Your task to perform on an android device: Show me productivity apps on the Play Store Image 0: 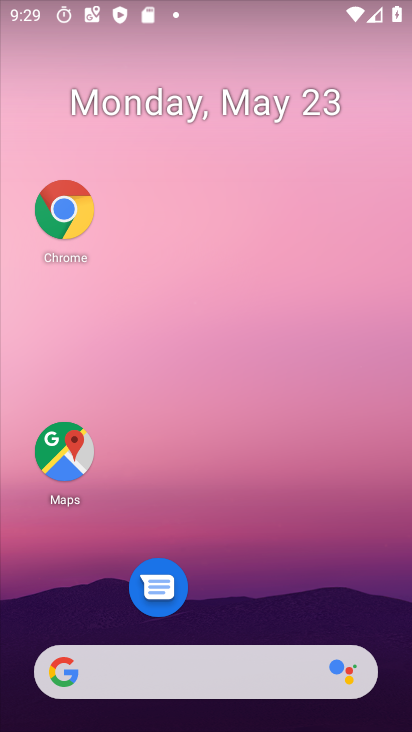
Step 0: click (132, 383)
Your task to perform on an android device: Show me productivity apps on the Play Store Image 1: 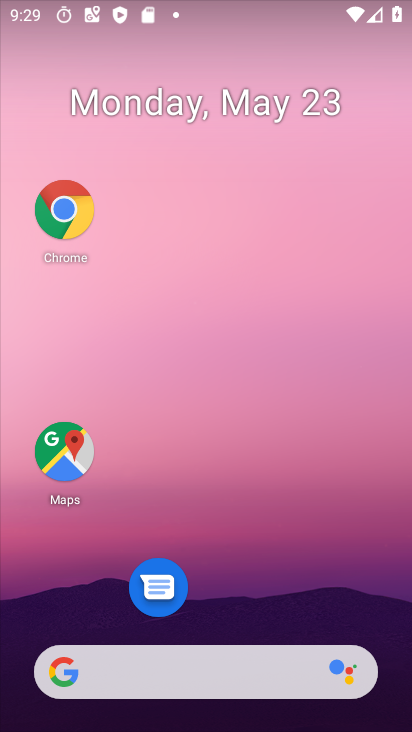
Step 1: drag from (285, 600) to (204, 155)
Your task to perform on an android device: Show me productivity apps on the Play Store Image 2: 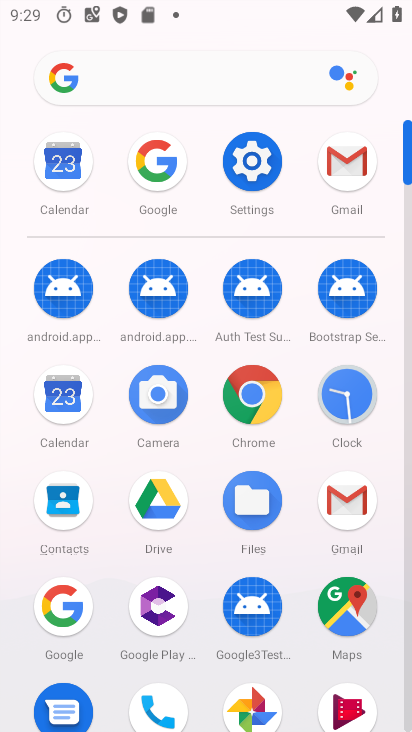
Step 2: drag from (299, 637) to (205, 219)
Your task to perform on an android device: Show me productivity apps on the Play Store Image 3: 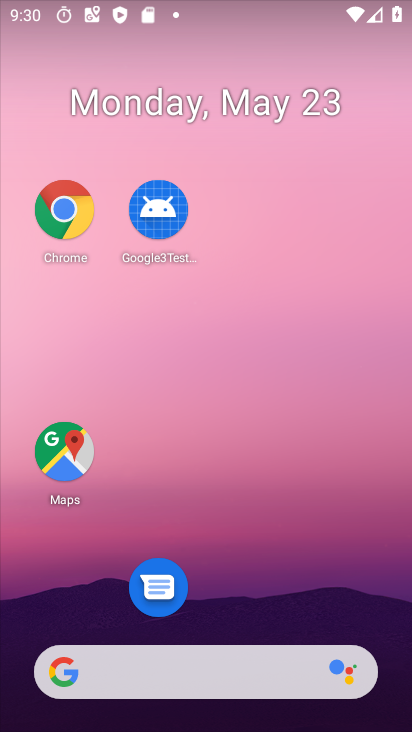
Step 3: drag from (269, 619) to (221, 10)
Your task to perform on an android device: Show me productivity apps on the Play Store Image 4: 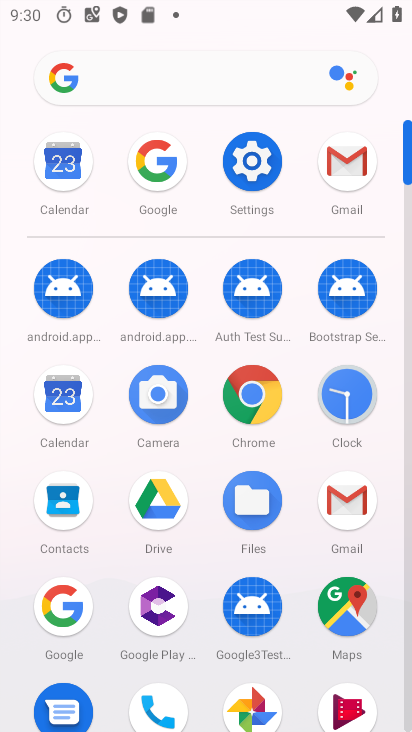
Step 4: drag from (293, 647) to (262, 23)
Your task to perform on an android device: Show me productivity apps on the Play Store Image 5: 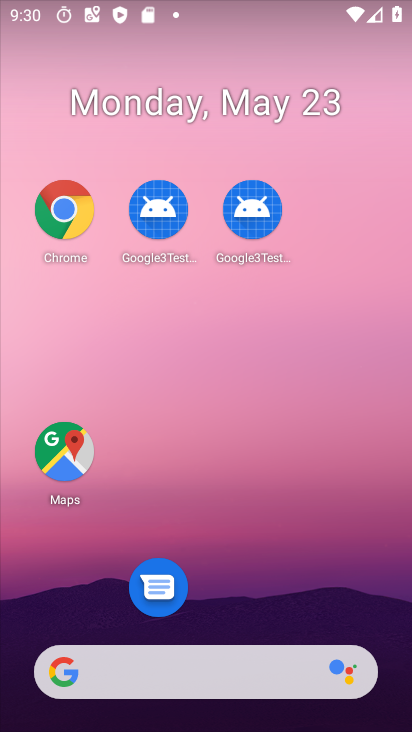
Step 5: drag from (256, 613) to (380, 10)
Your task to perform on an android device: Show me productivity apps on the Play Store Image 6: 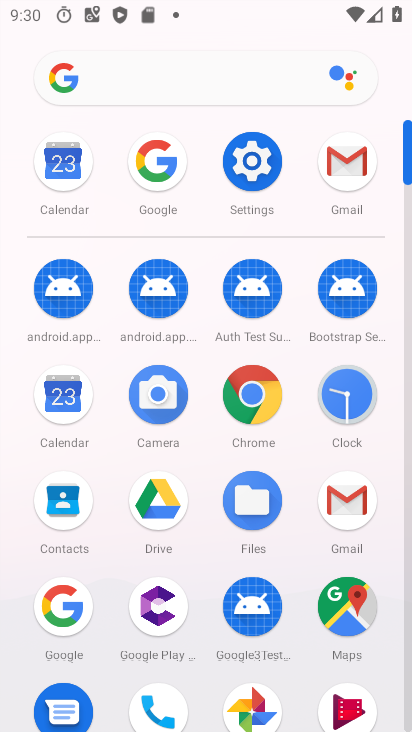
Step 6: drag from (299, 667) to (320, 291)
Your task to perform on an android device: Show me productivity apps on the Play Store Image 7: 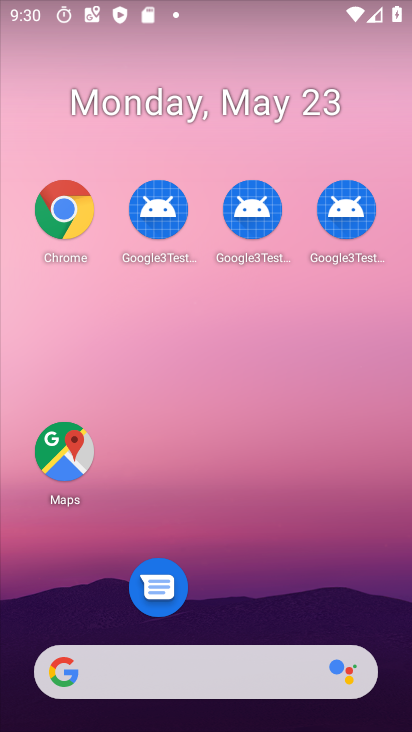
Step 7: drag from (247, 616) to (400, 69)
Your task to perform on an android device: Show me productivity apps on the Play Store Image 8: 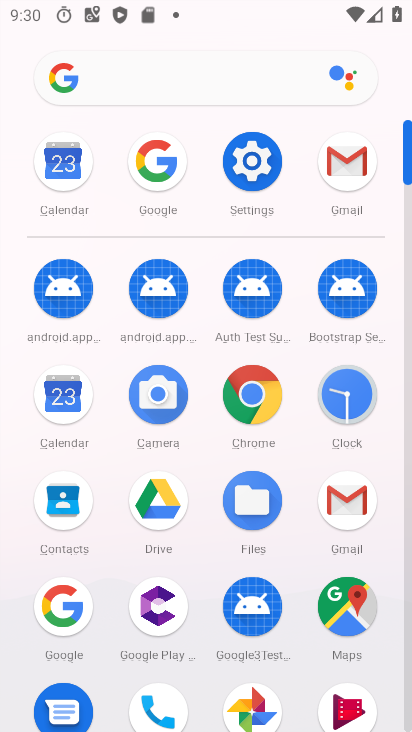
Step 8: drag from (205, 655) to (277, 231)
Your task to perform on an android device: Show me productivity apps on the Play Store Image 9: 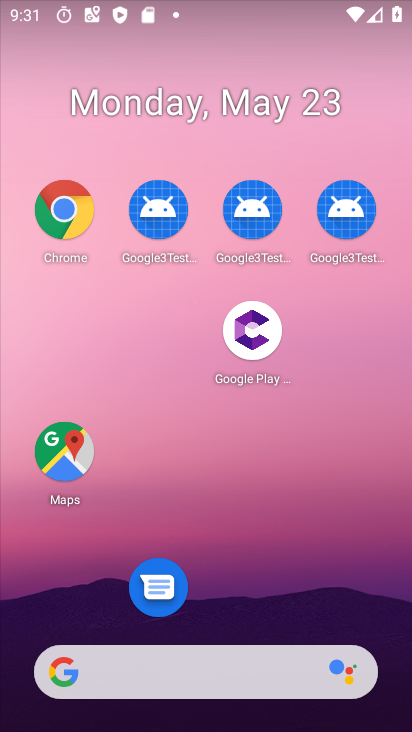
Step 9: drag from (226, 587) to (233, 29)
Your task to perform on an android device: Show me productivity apps on the Play Store Image 10: 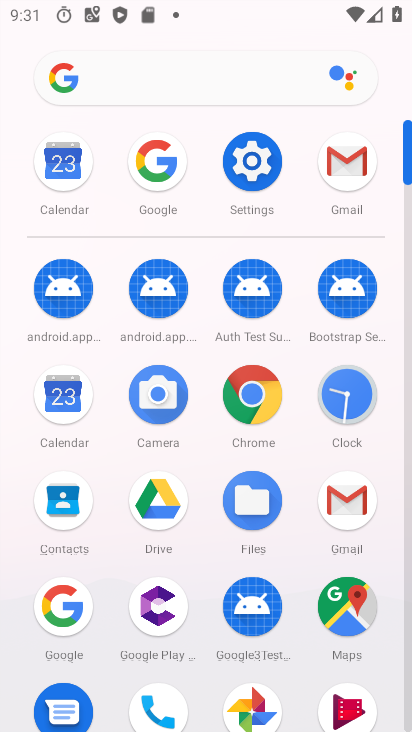
Step 10: drag from (284, 625) to (295, 188)
Your task to perform on an android device: Show me productivity apps on the Play Store Image 11: 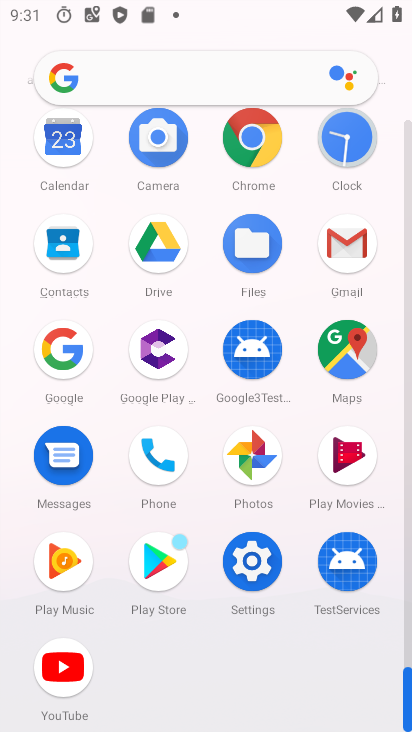
Step 11: click (164, 571)
Your task to perform on an android device: Show me productivity apps on the Play Store Image 12: 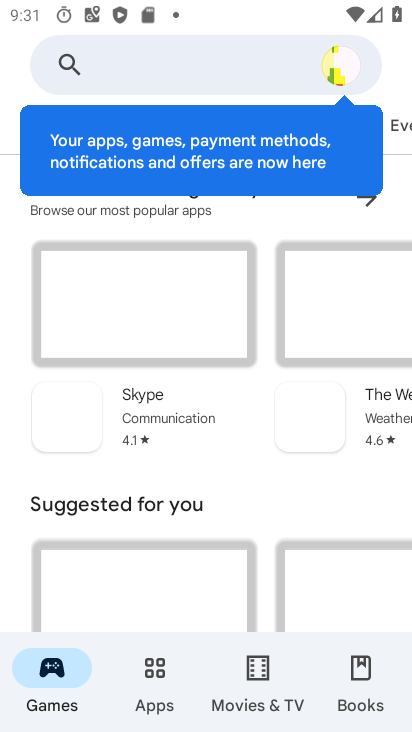
Step 12: click (109, 55)
Your task to perform on an android device: Show me productivity apps on the Play Store Image 13: 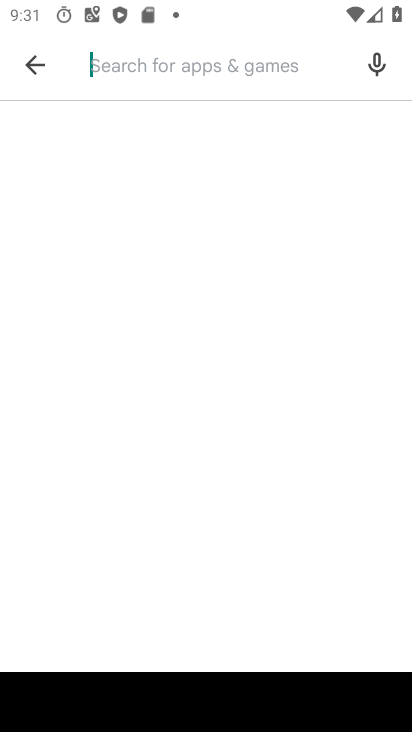
Step 13: type "productivity apps"
Your task to perform on an android device: Show me productivity apps on the Play Store Image 14: 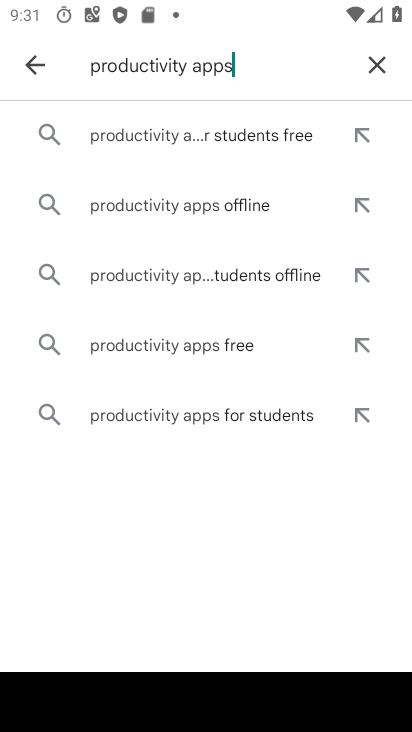
Step 14: click (187, 356)
Your task to perform on an android device: Show me productivity apps on the Play Store Image 15: 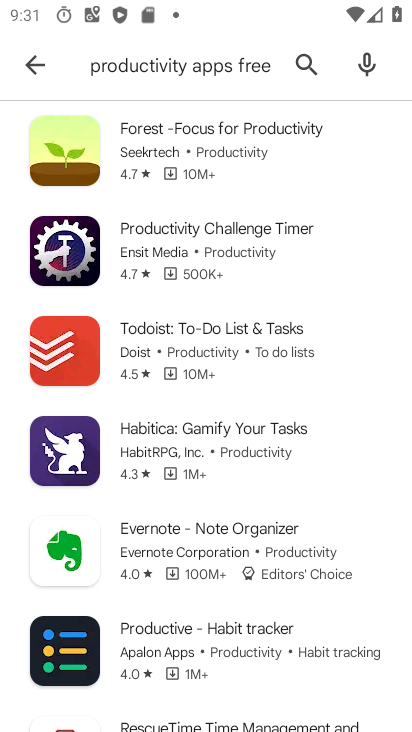
Step 15: task complete